Your task to perform on an android device: find which apps use the phone's location Image 0: 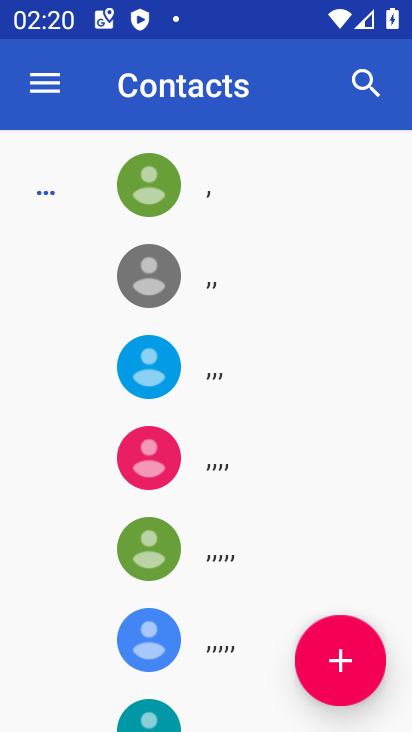
Step 0: press home button
Your task to perform on an android device: find which apps use the phone's location Image 1: 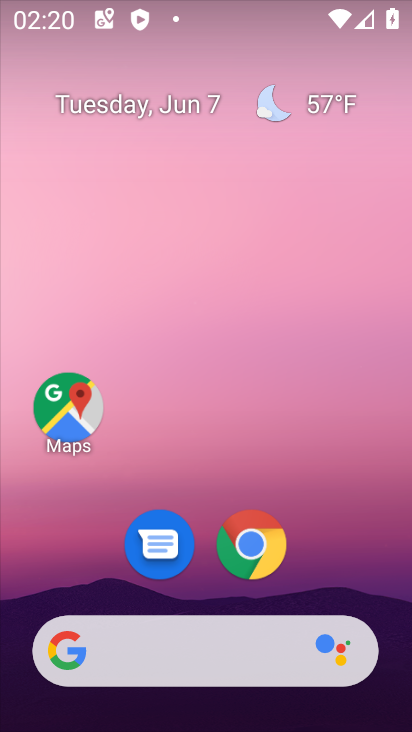
Step 1: drag from (313, 555) to (330, 277)
Your task to perform on an android device: find which apps use the phone's location Image 2: 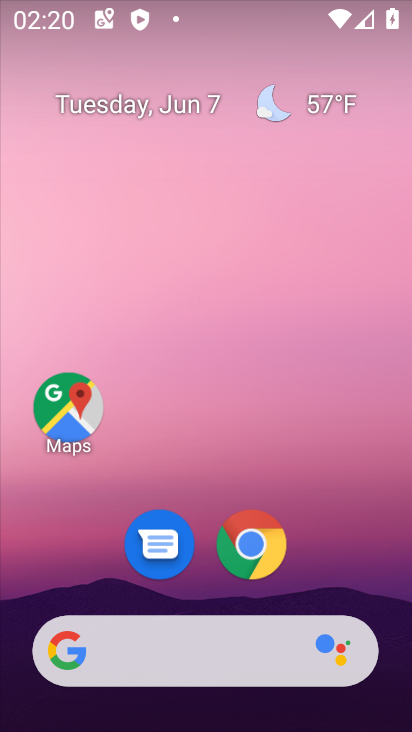
Step 2: drag from (255, 536) to (262, 203)
Your task to perform on an android device: find which apps use the phone's location Image 3: 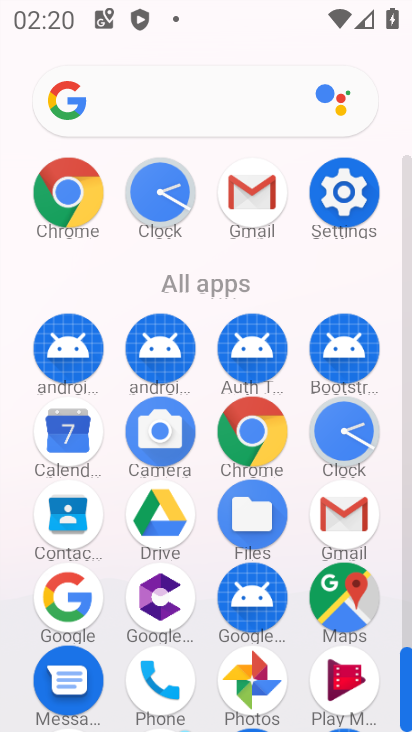
Step 3: click (327, 179)
Your task to perform on an android device: find which apps use the phone's location Image 4: 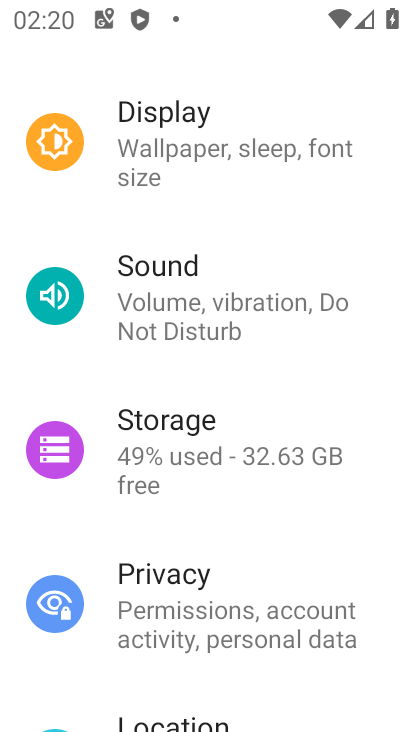
Step 4: drag from (226, 314) to (212, 464)
Your task to perform on an android device: find which apps use the phone's location Image 5: 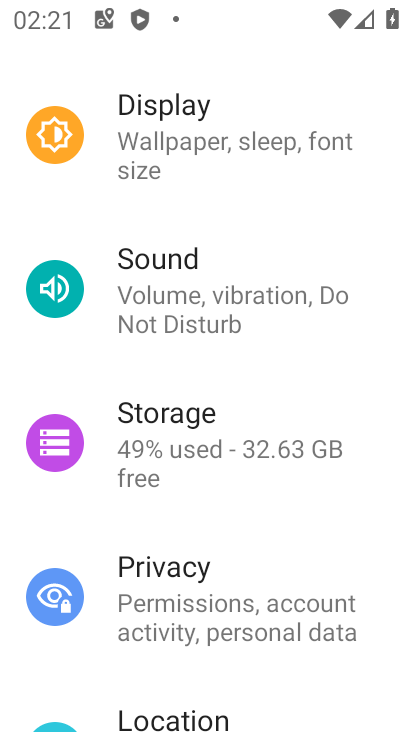
Step 5: drag from (213, 540) to (229, 235)
Your task to perform on an android device: find which apps use the phone's location Image 6: 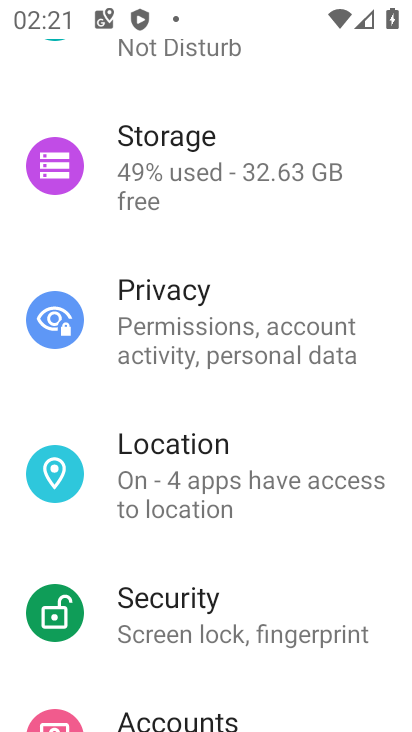
Step 6: click (162, 496)
Your task to perform on an android device: find which apps use the phone's location Image 7: 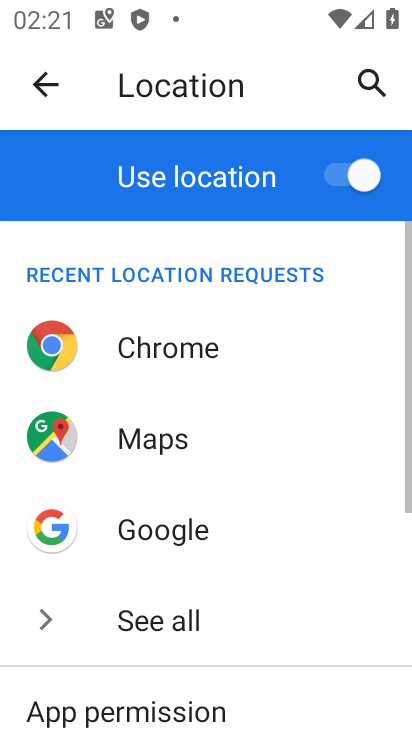
Step 7: task complete